Your task to perform on an android device: Go to wifi settings Image 0: 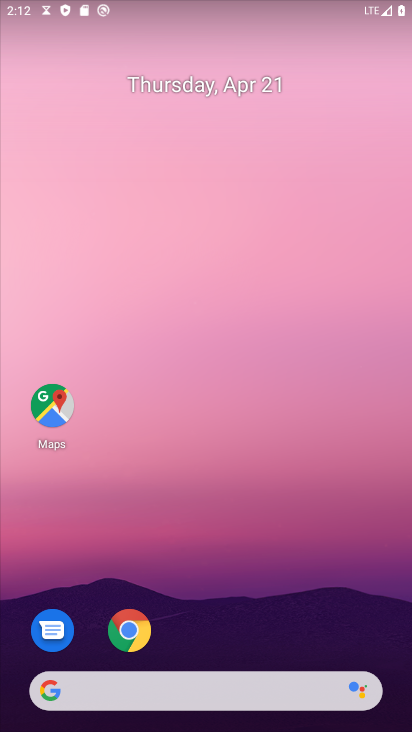
Step 0: drag from (359, 621) to (344, 3)
Your task to perform on an android device: Go to wifi settings Image 1: 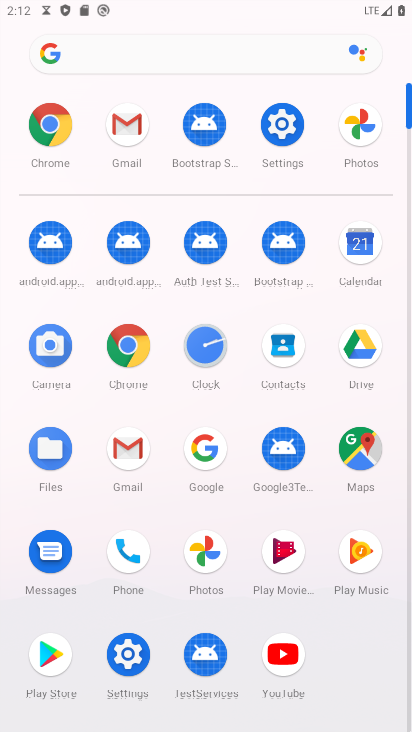
Step 1: click (284, 156)
Your task to perform on an android device: Go to wifi settings Image 2: 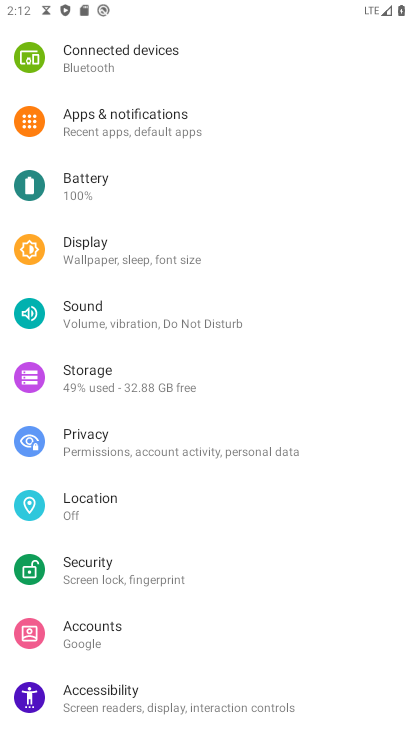
Step 2: drag from (306, 94) to (318, 561)
Your task to perform on an android device: Go to wifi settings Image 3: 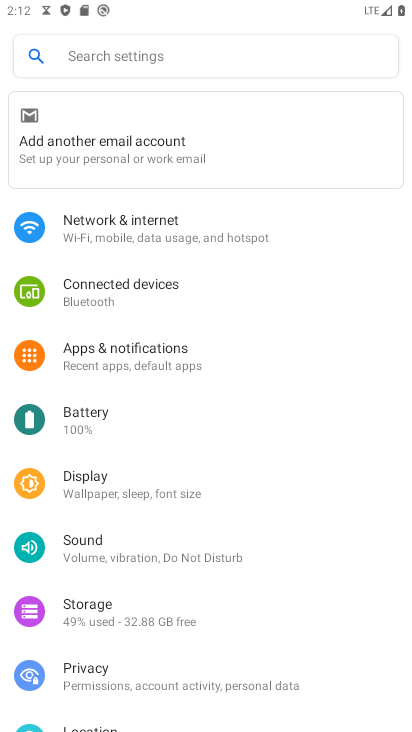
Step 3: click (119, 242)
Your task to perform on an android device: Go to wifi settings Image 4: 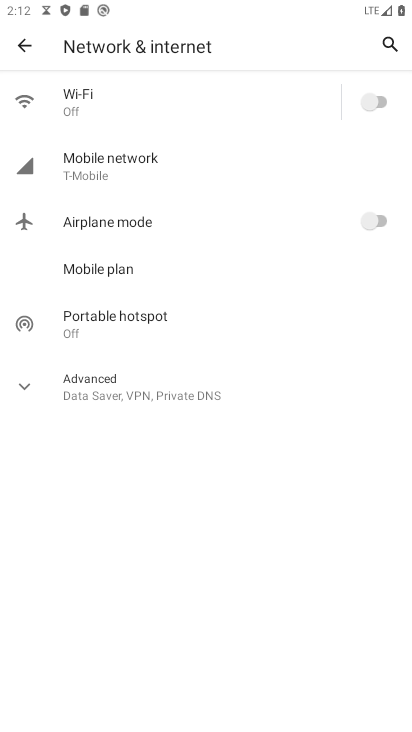
Step 4: click (76, 99)
Your task to perform on an android device: Go to wifi settings Image 5: 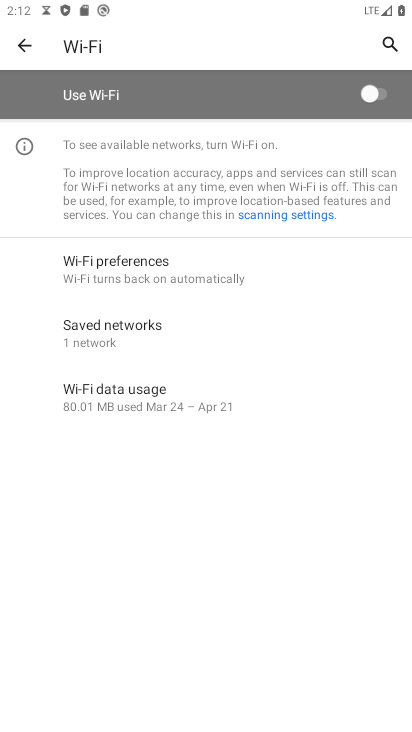
Step 5: task complete